Your task to perform on an android device: Go to Google Image 0: 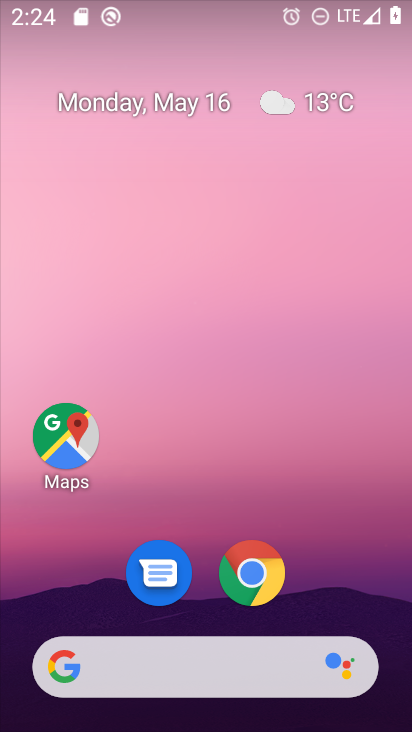
Step 0: drag from (218, 657) to (184, 138)
Your task to perform on an android device: Go to Google Image 1: 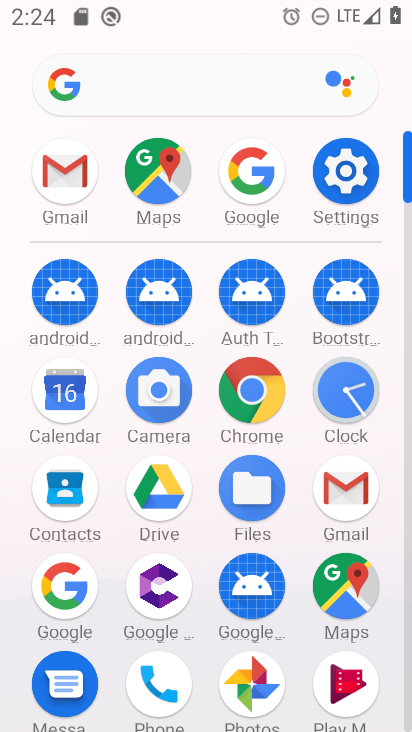
Step 1: click (87, 587)
Your task to perform on an android device: Go to Google Image 2: 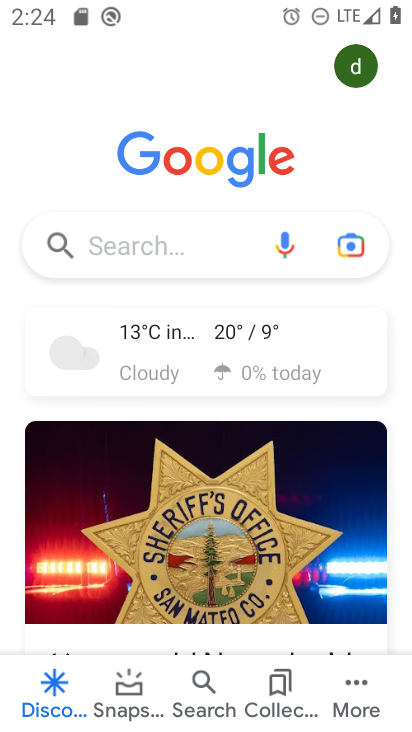
Step 2: task complete